Your task to perform on an android device: Open the map Image 0: 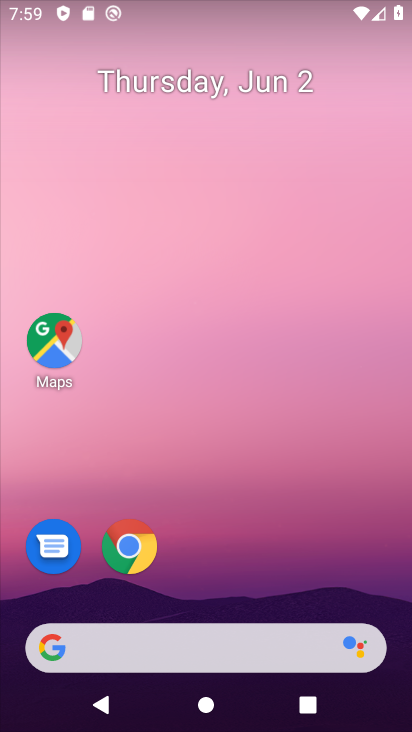
Step 0: drag from (251, 718) to (209, 243)
Your task to perform on an android device: Open the map Image 1: 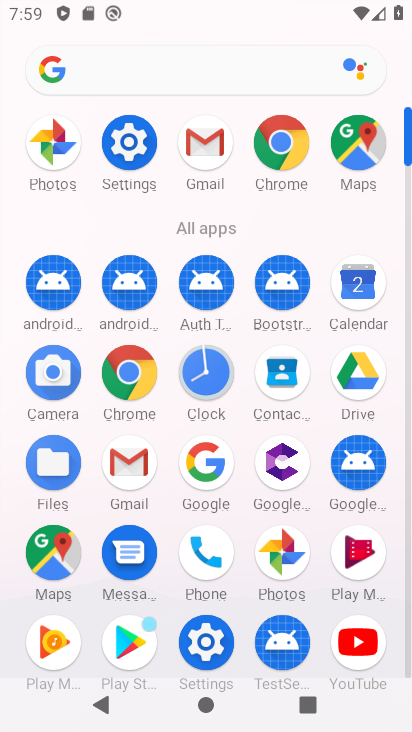
Step 1: click (58, 553)
Your task to perform on an android device: Open the map Image 2: 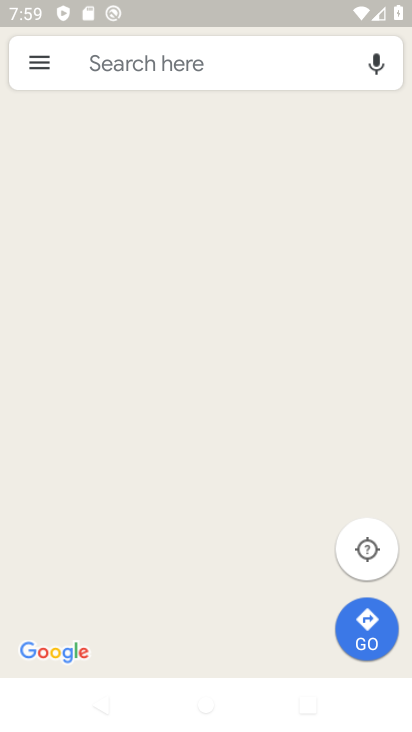
Step 2: task complete